Your task to perform on an android device: delete location history Image 0: 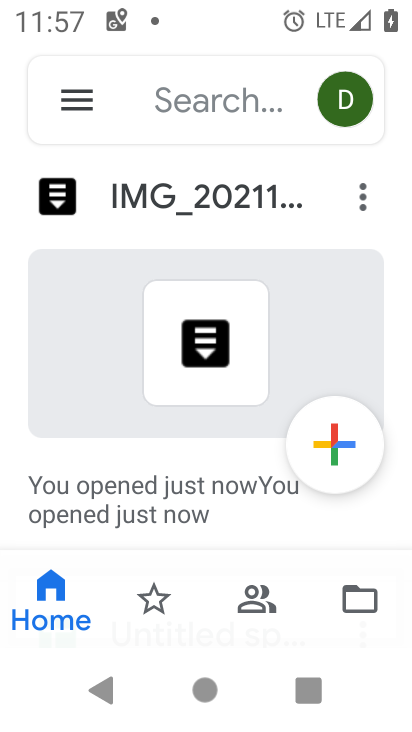
Step 0: drag from (200, 485) to (318, 34)
Your task to perform on an android device: delete location history Image 1: 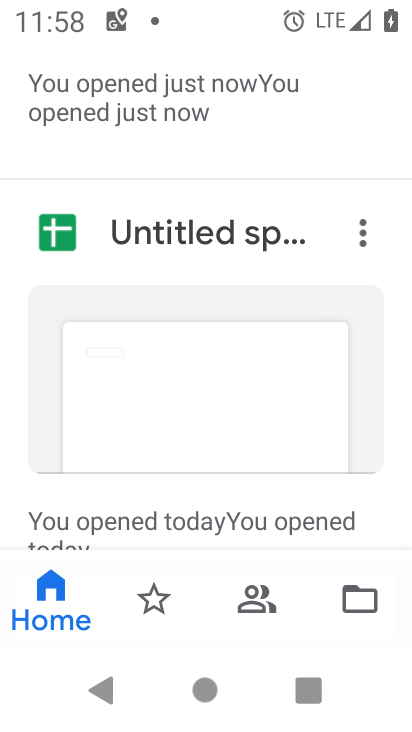
Step 1: drag from (220, 543) to (287, 144)
Your task to perform on an android device: delete location history Image 2: 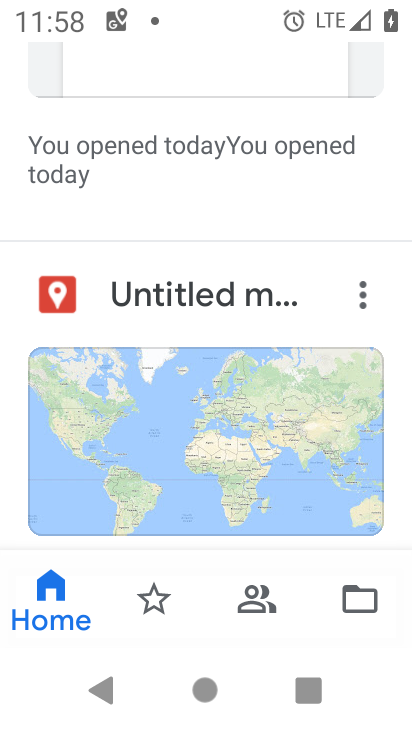
Step 2: drag from (309, 83) to (402, 533)
Your task to perform on an android device: delete location history Image 3: 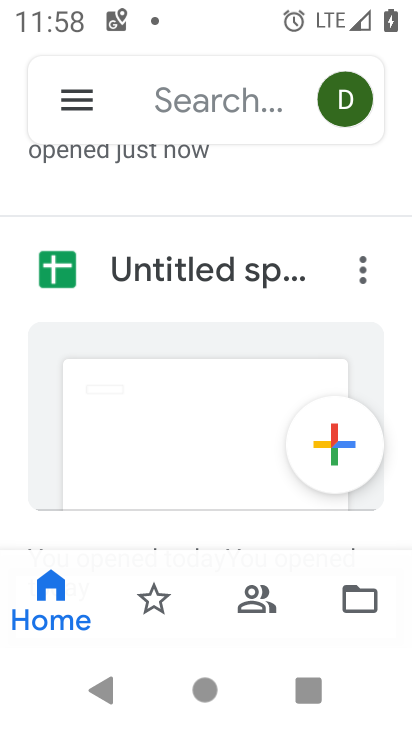
Step 3: press home button
Your task to perform on an android device: delete location history Image 4: 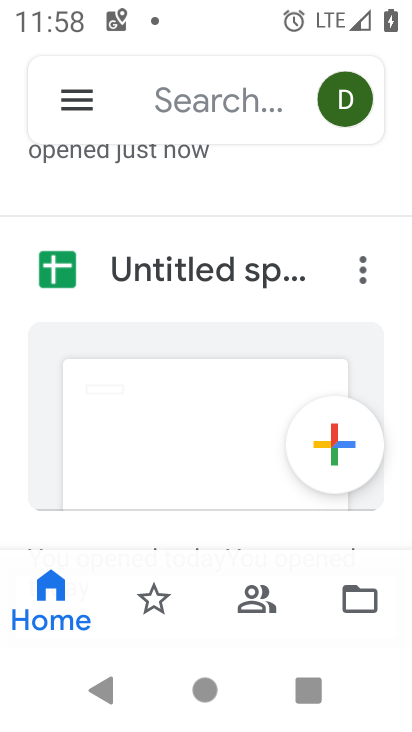
Step 4: click (380, 381)
Your task to perform on an android device: delete location history Image 5: 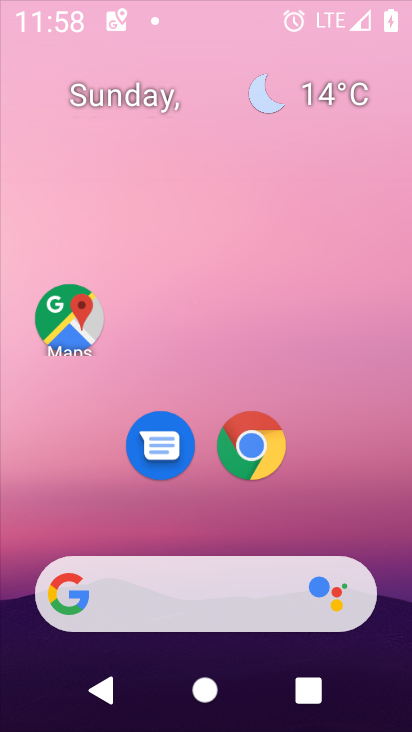
Step 5: drag from (203, 536) to (314, 26)
Your task to perform on an android device: delete location history Image 6: 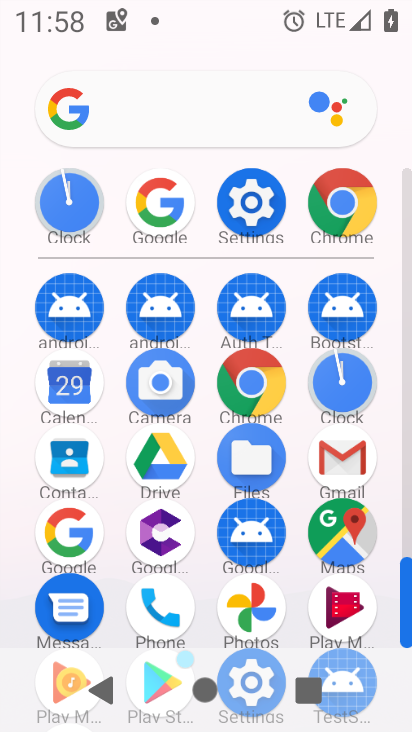
Step 6: click (242, 197)
Your task to perform on an android device: delete location history Image 7: 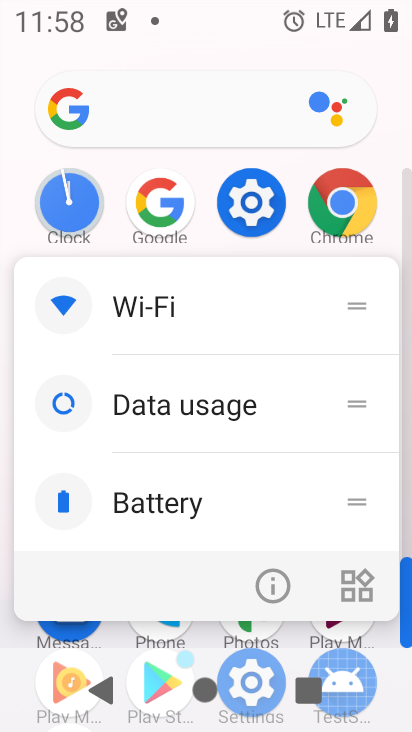
Step 7: click (270, 580)
Your task to perform on an android device: delete location history Image 8: 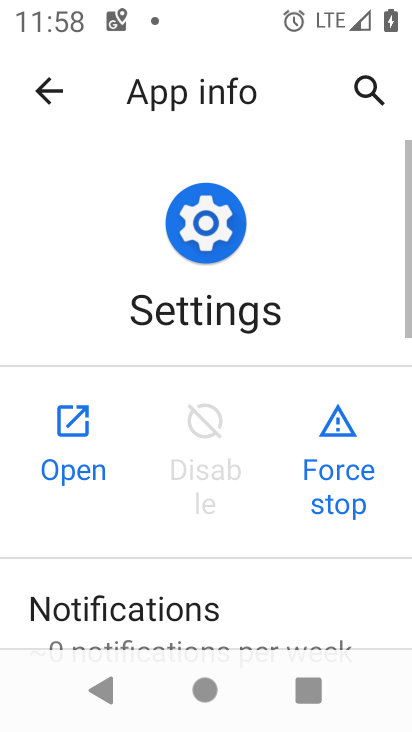
Step 8: click (76, 458)
Your task to perform on an android device: delete location history Image 9: 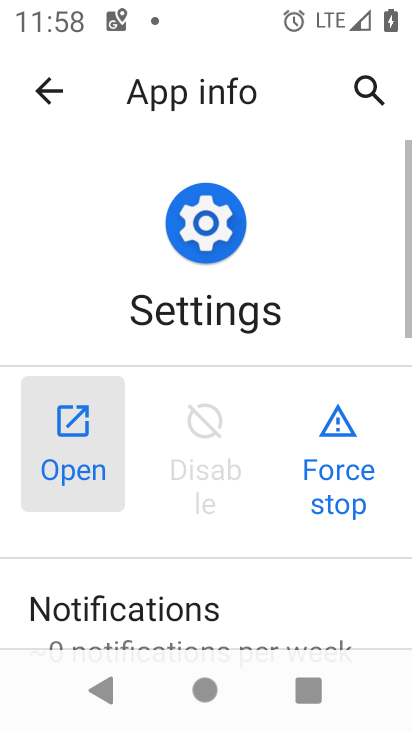
Step 9: drag from (228, 449) to (324, 16)
Your task to perform on an android device: delete location history Image 10: 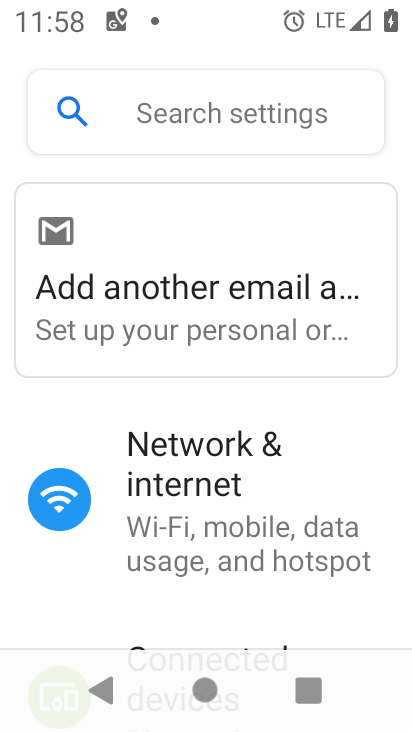
Step 10: drag from (229, 501) to (344, 46)
Your task to perform on an android device: delete location history Image 11: 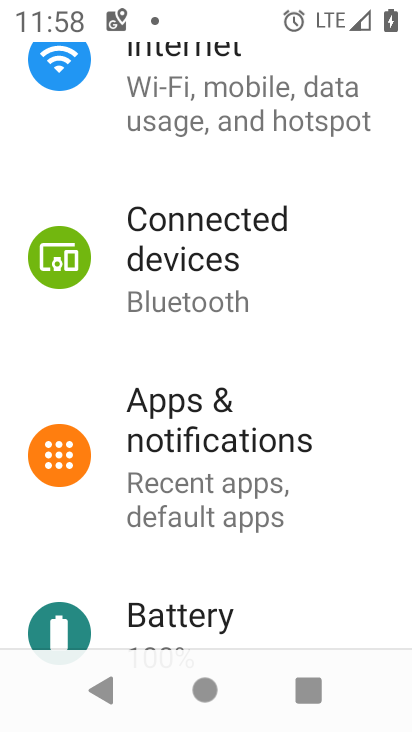
Step 11: drag from (240, 574) to (296, 101)
Your task to perform on an android device: delete location history Image 12: 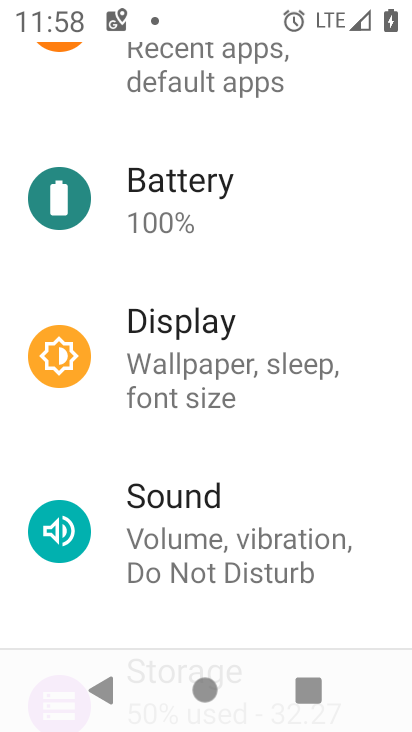
Step 12: drag from (231, 510) to (291, 24)
Your task to perform on an android device: delete location history Image 13: 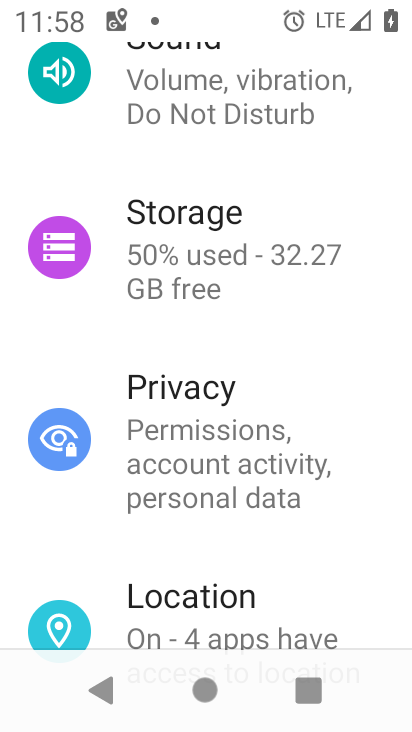
Step 13: click (235, 595)
Your task to perform on an android device: delete location history Image 14: 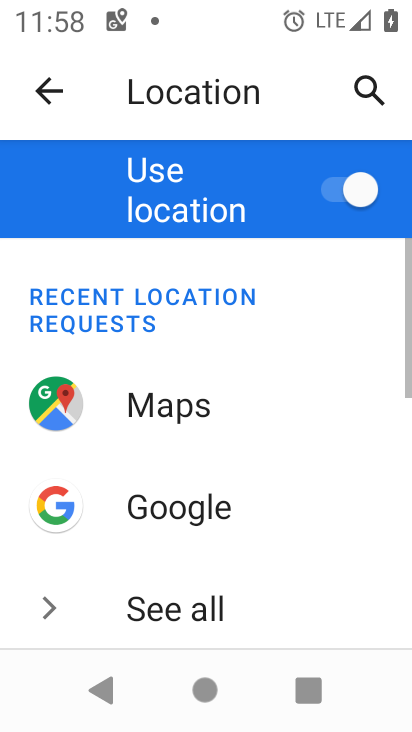
Step 14: drag from (239, 574) to (293, 182)
Your task to perform on an android device: delete location history Image 15: 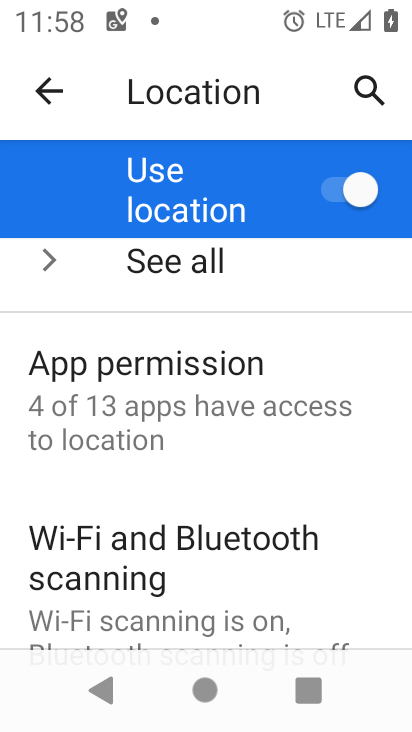
Step 15: drag from (226, 574) to (313, 109)
Your task to perform on an android device: delete location history Image 16: 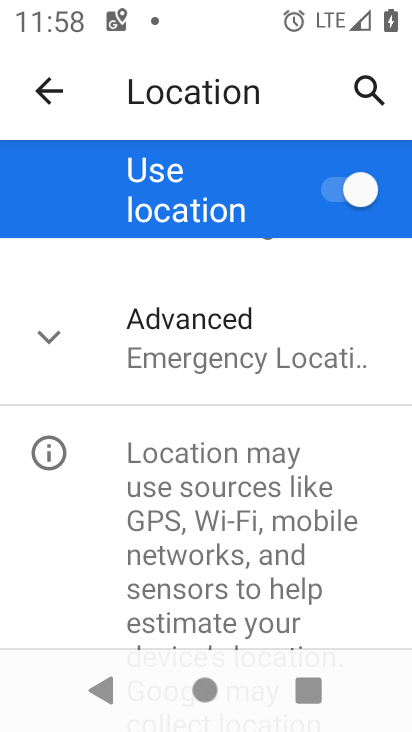
Step 16: click (158, 379)
Your task to perform on an android device: delete location history Image 17: 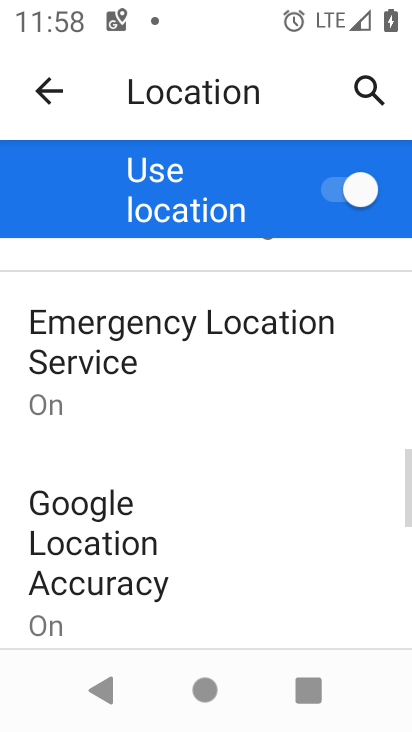
Step 17: drag from (148, 578) to (273, 184)
Your task to perform on an android device: delete location history Image 18: 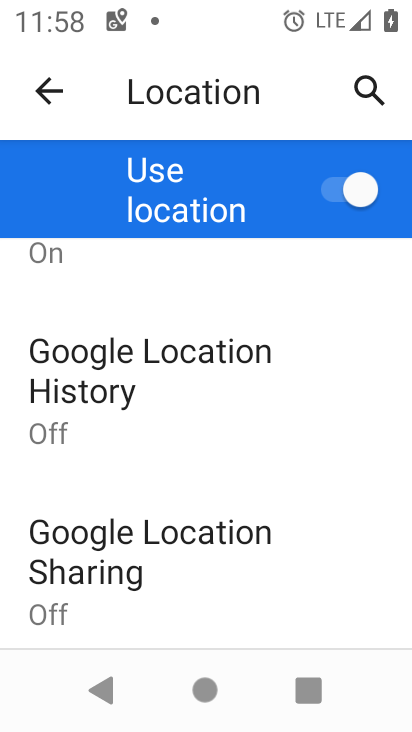
Step 18: click (128, 401)
Your task to perform on an android device: delete location history Image 19: 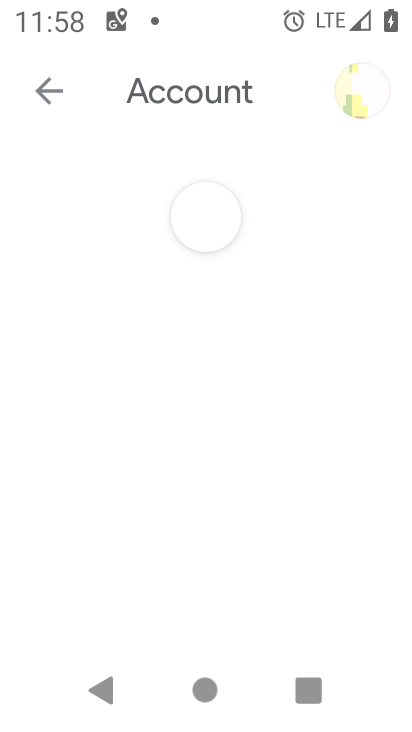
Step 19: drag from (258, 551) to (305, 184)
Your task to perform on an android device: delete location history Image 20: 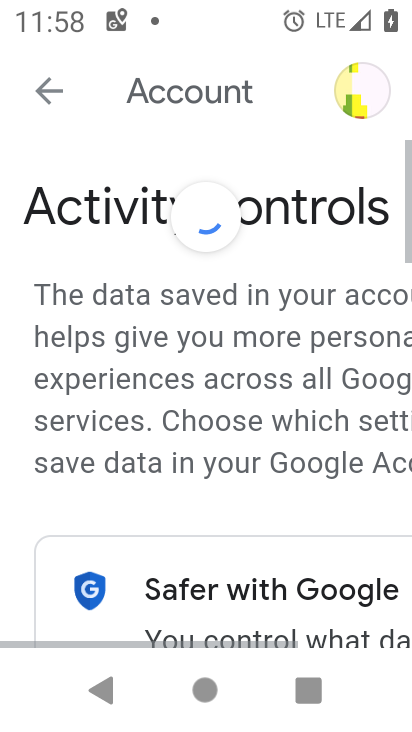
Step 20: drag from (287, 506) to (265, 161)
Your task to perform on an android device: delete location history Image 21: 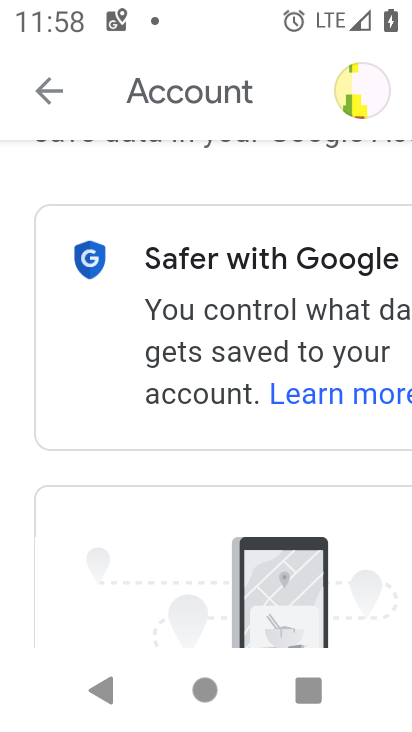
Step 21: drag from (253, 557) to (236, 114)
Your task to perform on an android device: delete location history Image 22: 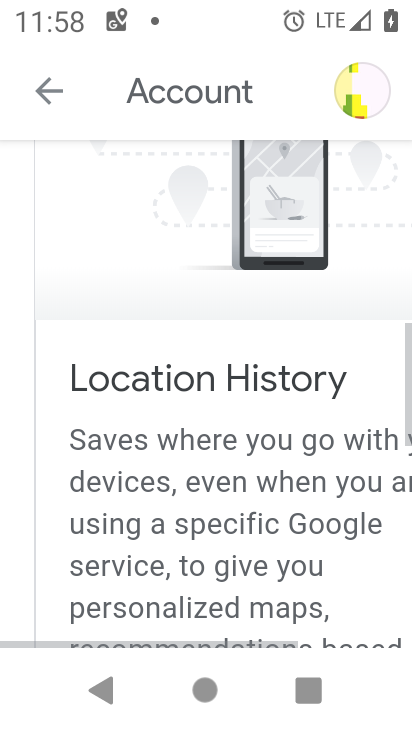
Step 22: drag from (262, 414) to (224, 79)
Your task to perform on an android device: delete location history Image 23: 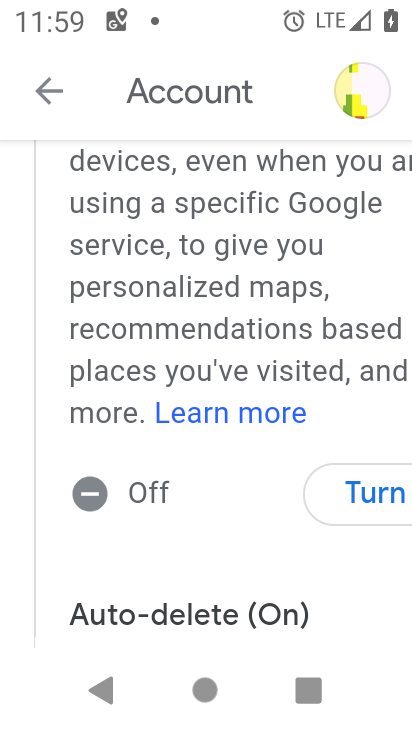
Step 23: click (348, 496)
Your task to perform on an android device: delete location history Image 24: 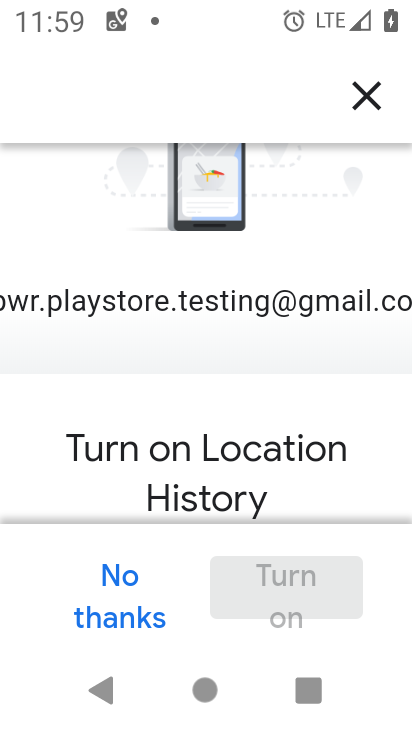
Step 24: press back button
Your task to perform on an android device: delete location history Image 25: 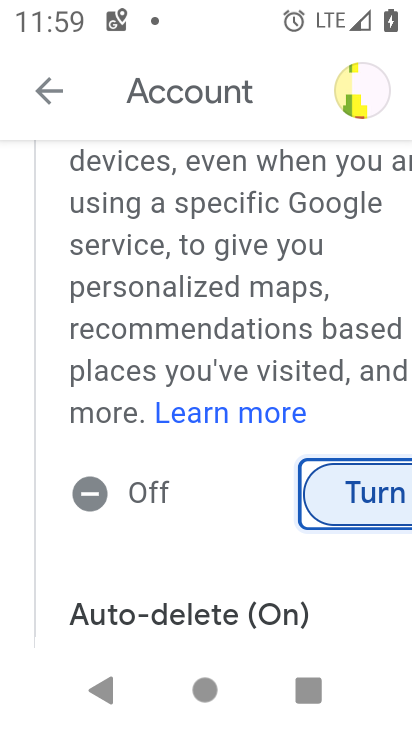
Step 25: drag from (220, 598) to (303, 251)
Your task to perform on an android device: delete location history Image 26: 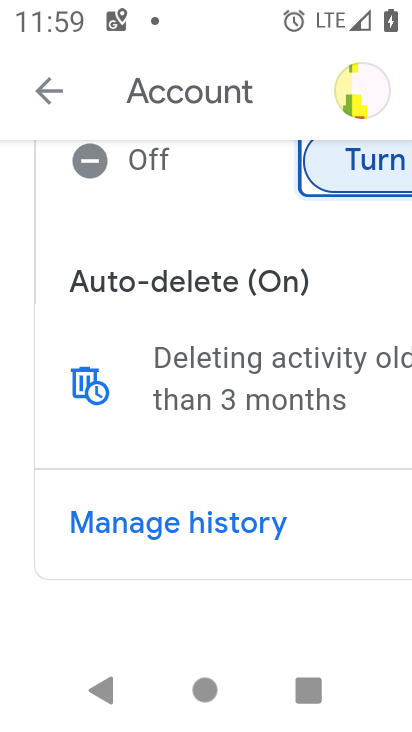
Step 26: click (94, 375)
Your task to perform on an android device: delete location history Image 27: 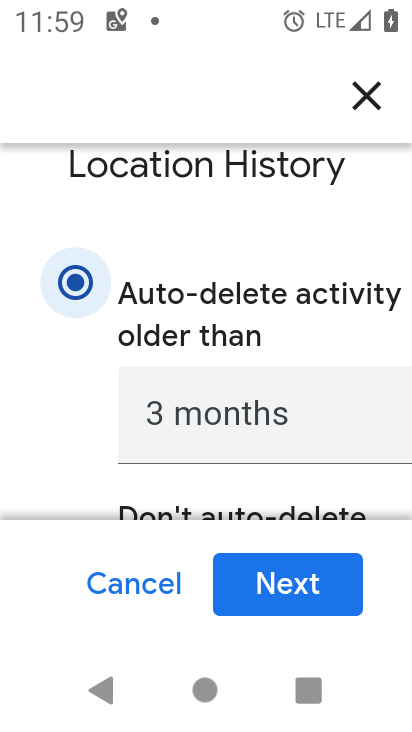
Step 27: click (286, 596)
Your task to perform on an android device: delete location history Image 28: 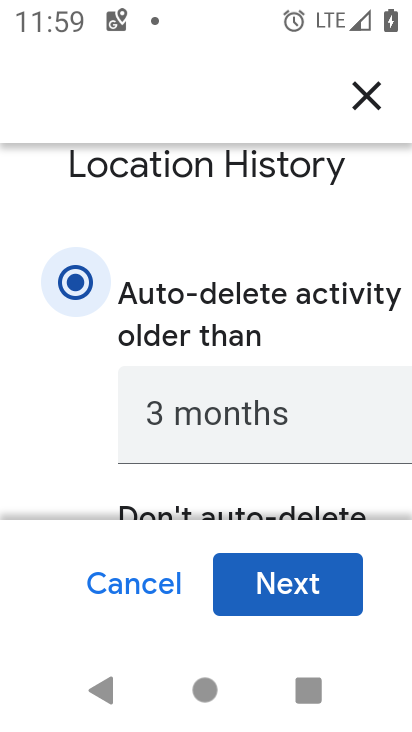
Step 28: click (283, 584)
Your task to perform on an android device: delete location history Image 29: 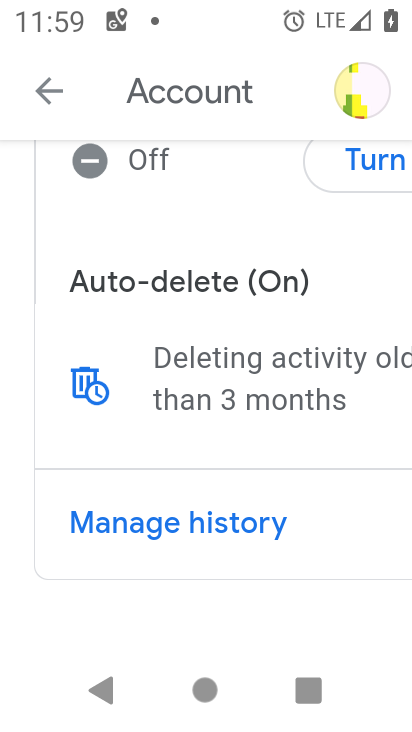
Step 29: click (80, 393)
Your task to perform on an android device: delete location history Image 30: 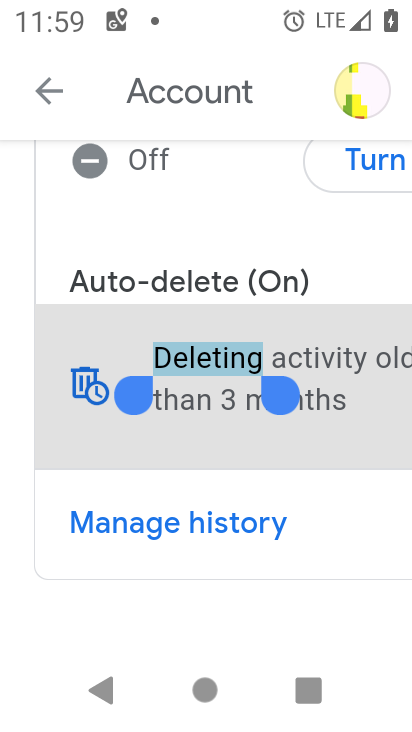
Step 30: click (117, 371)
Your task to perform on an android device: delete location history Image 31: 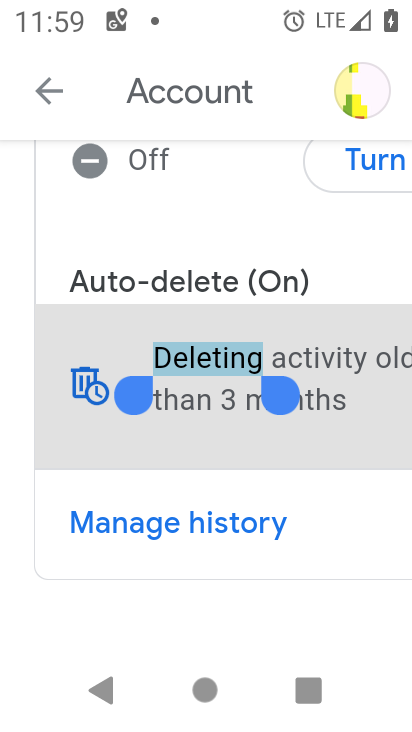
Step 31: click (93, 371)
Your task to perform on an android device: delete location history Image 32: 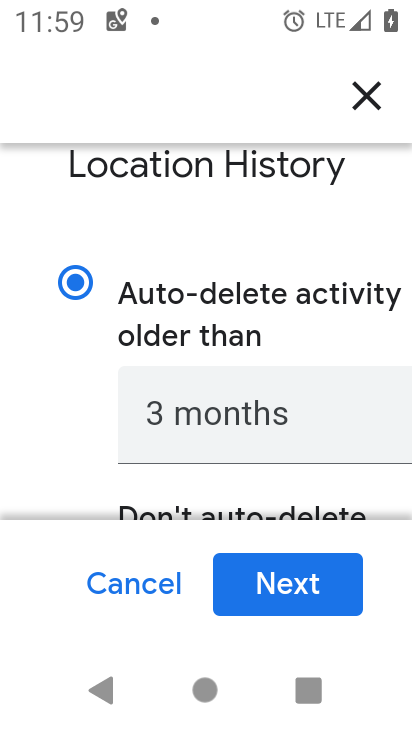
Step 32: click (87, 371)
Your task to perform on an android device: delete location history Image 33: 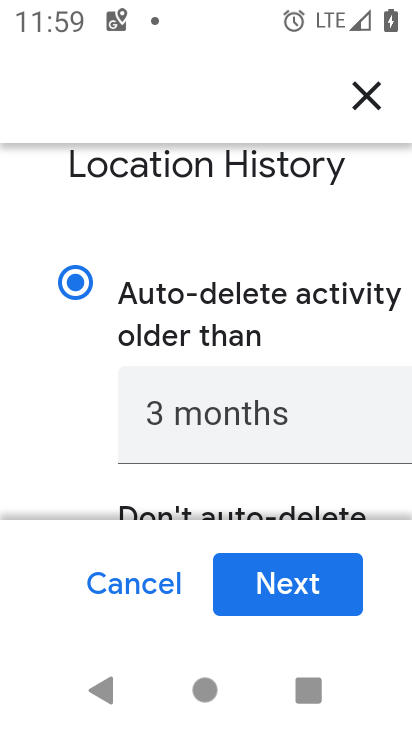
Step 33: click (294, 572)
Your task to perform on an android device: delete location history Image 34: 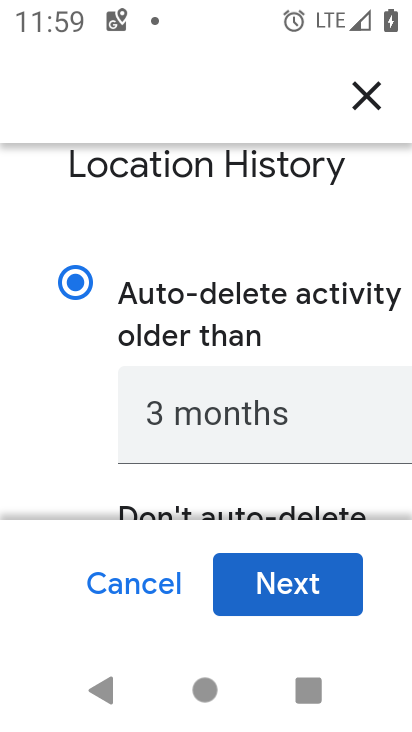
Step 34: click (294, 572)
Your task to perform on an android device: delete location history Image 35: 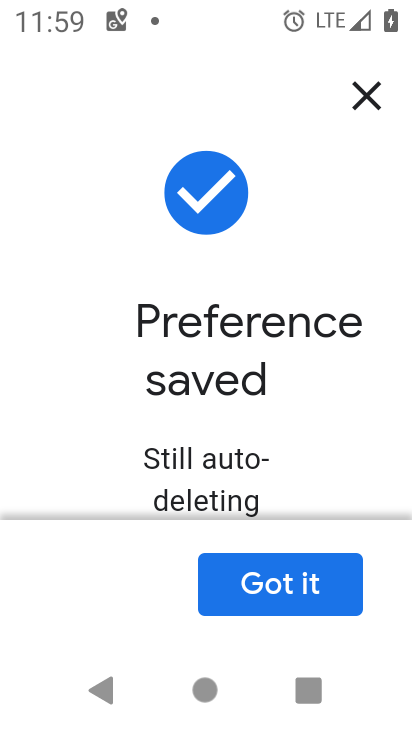
Step 35: click (294, 572)
Your task to perform on an android device: delete location history Image 36: 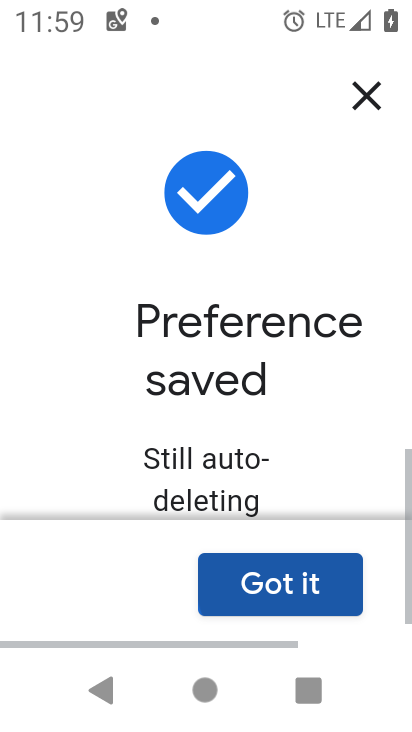
Step 36: click (294, 571)
Your task to perform on an android device: delete location history Image 37: 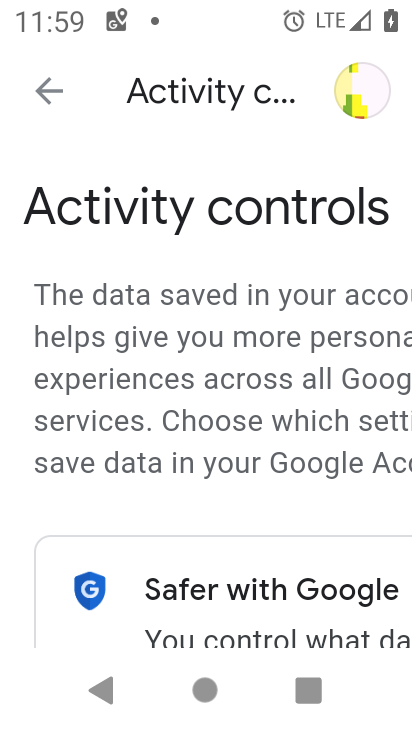
Step 37: task complete